Your task to perform on an android device: Clear the cart on amazon. Image 0: 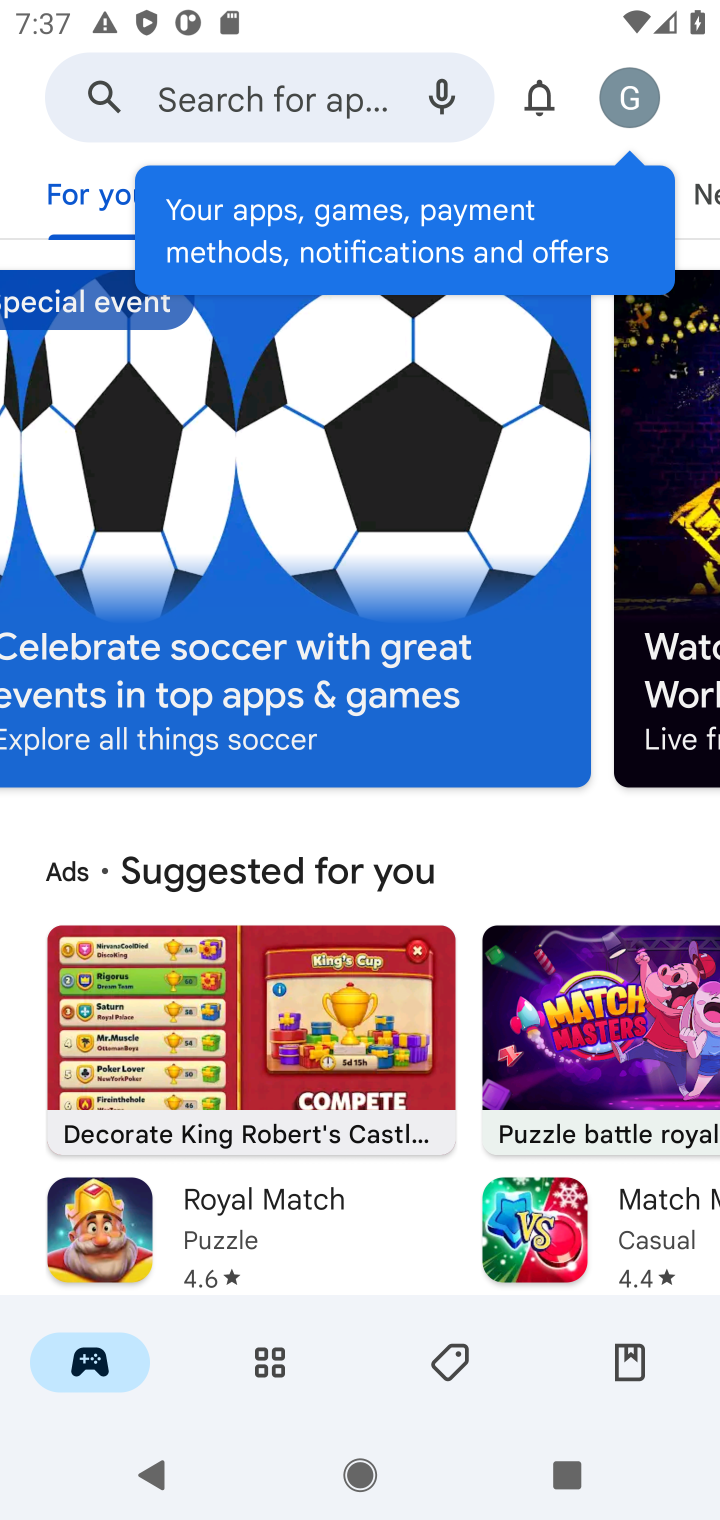
Step 0: press home button
Your task to perform on an android device: Clear the cart on amazon. Image 1: 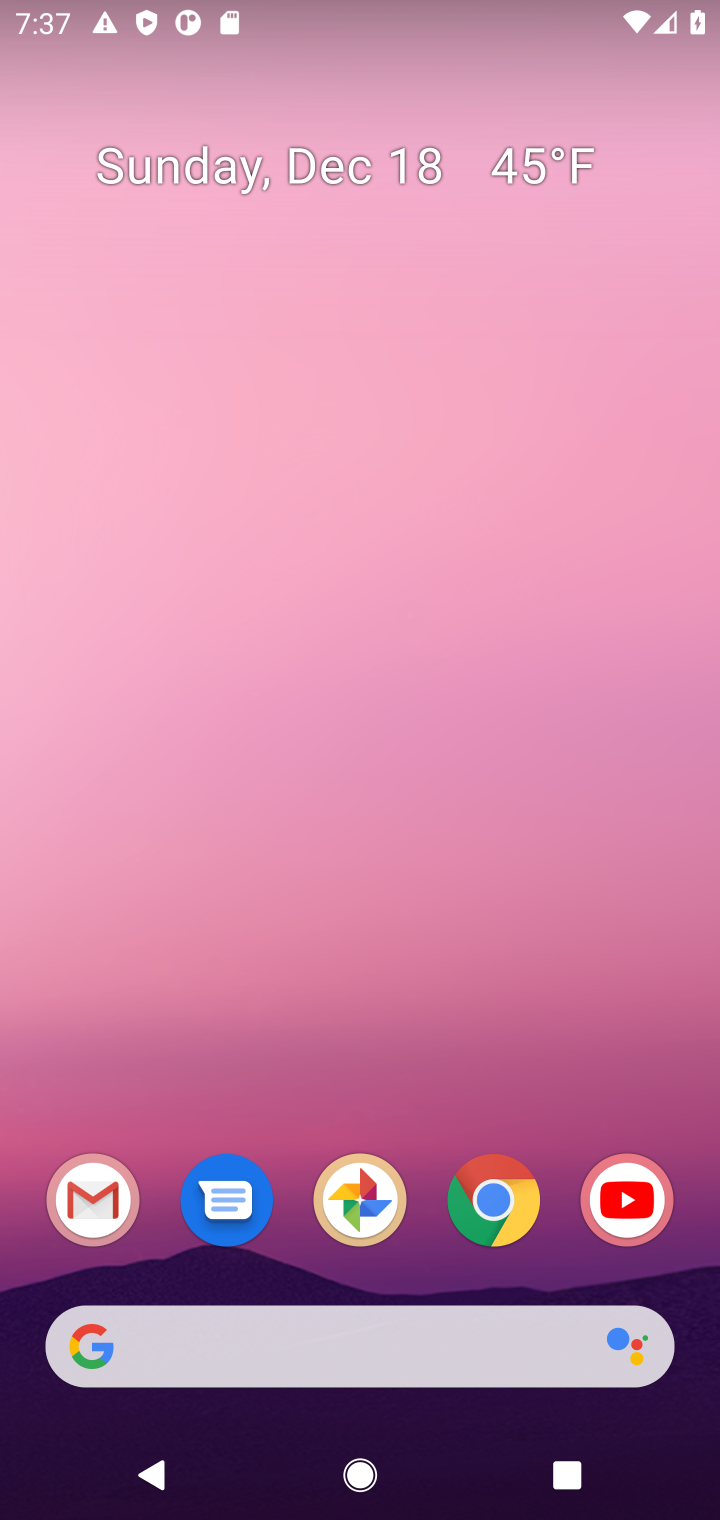
Step 1: click (497, 1202)
Your task to perform on an android device: Clear the cart on amazon. Image 2: 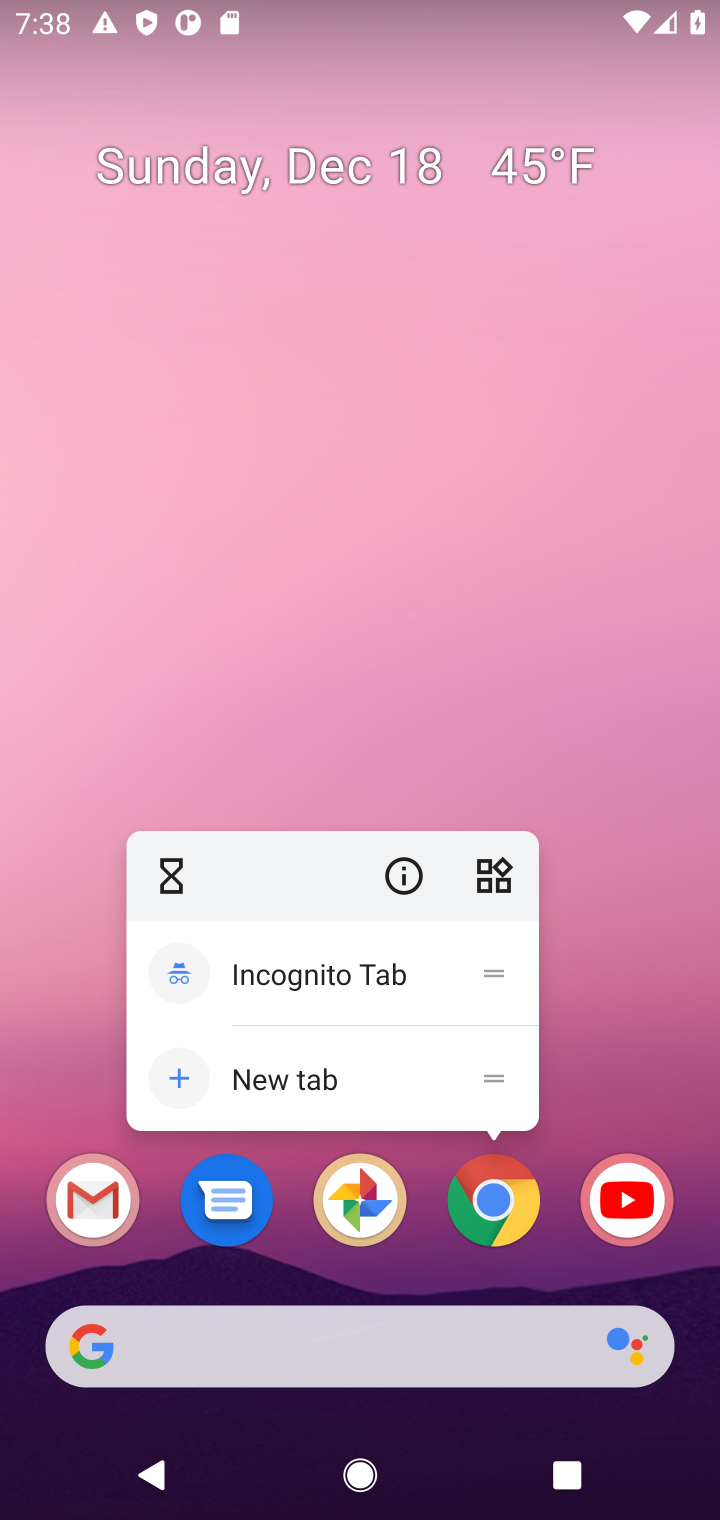
Step 2: click (497, 1202)
Your task to perform on an android device: Clear the cart on amazon. Image 3: 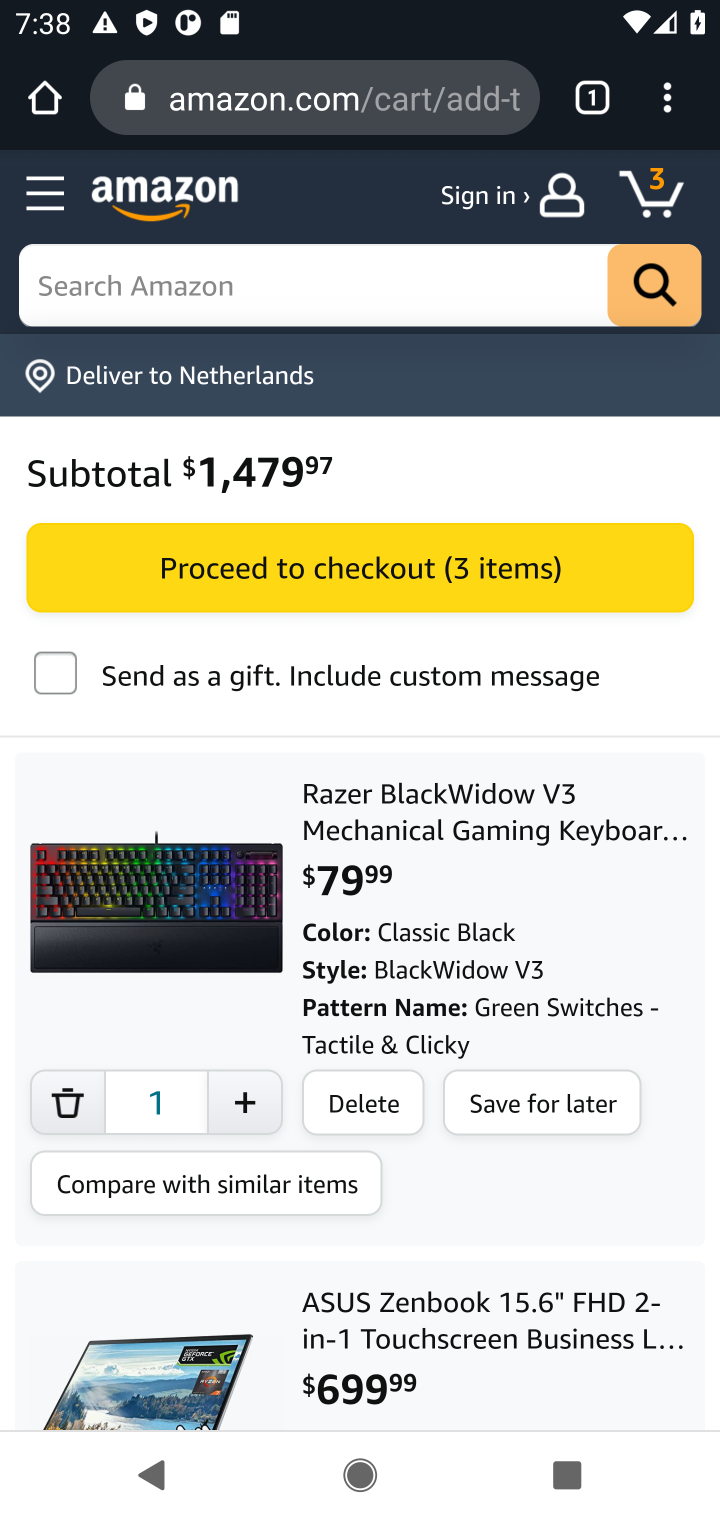
Step 3: click (365, 1108)
Your task to perform on an android device: Clear the cart on amazon. Image 4: 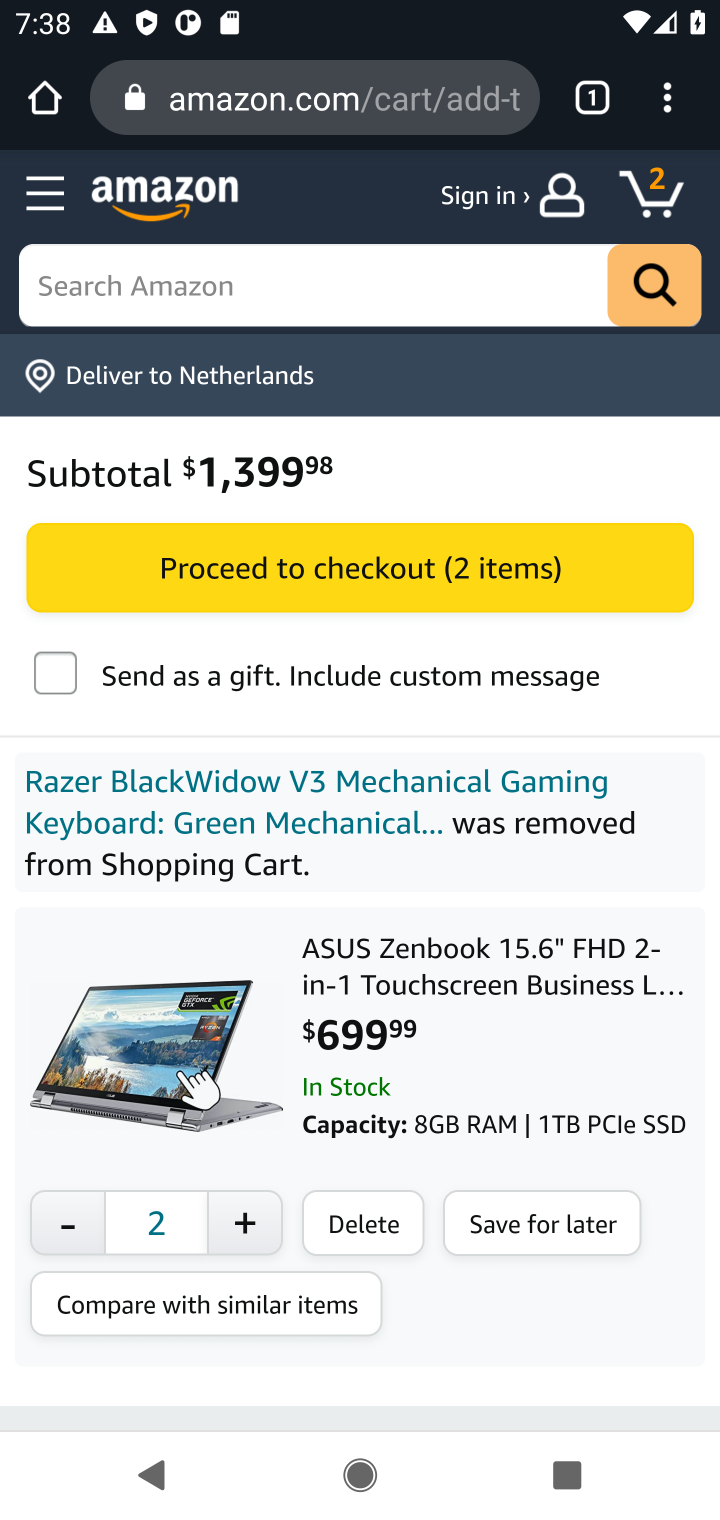
Step 4: click (352, 1236)
Your task to perform on an android device: Clear the cart on amazon. Image 5: 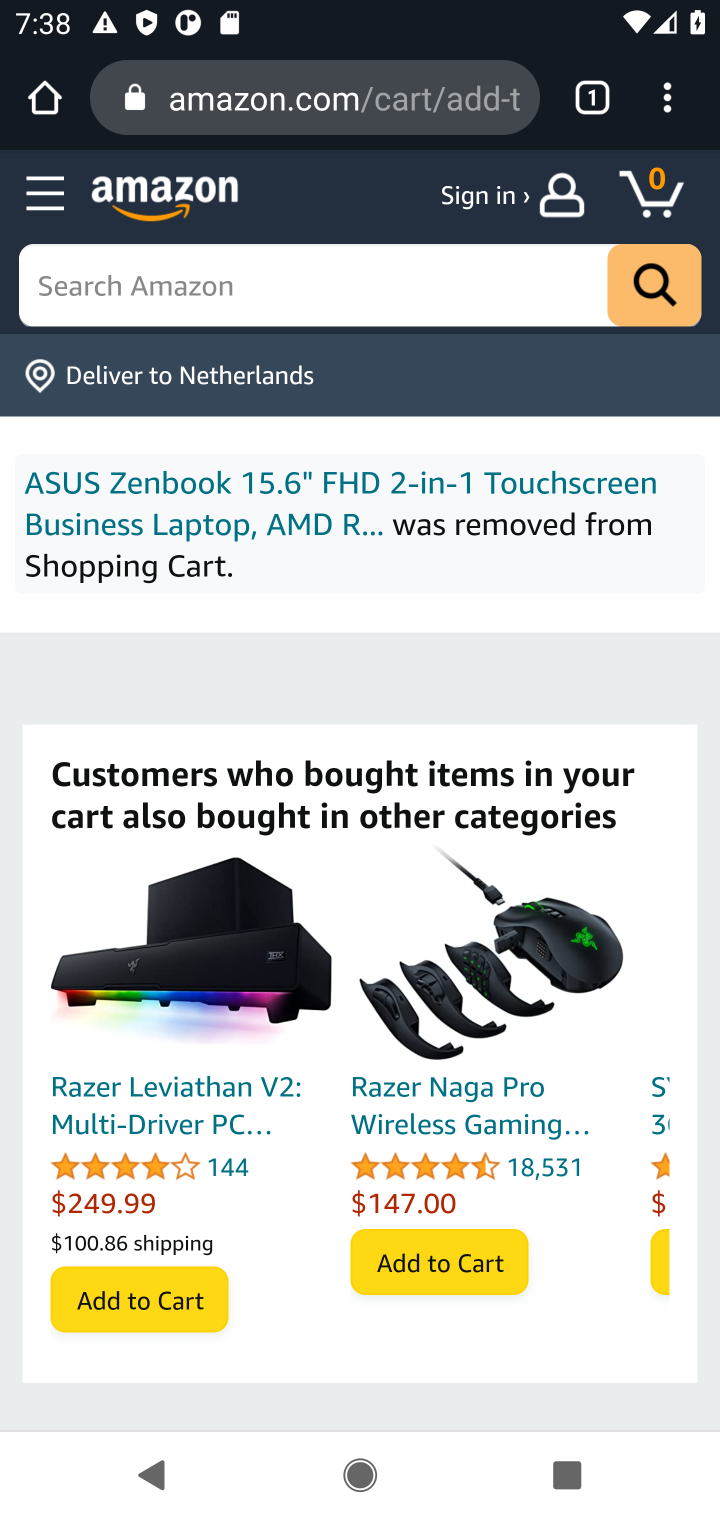
Step 5: task complete